Your task to perform on an android device: Go to network settings Image 0: 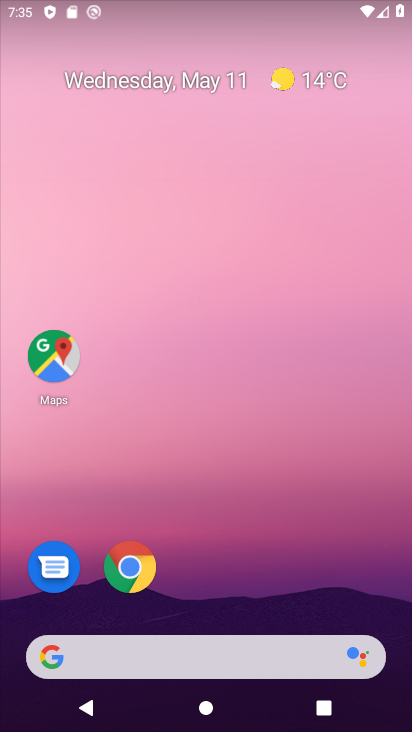
Step 0: drag from (248, 594) to (264, 65)
Your task to perform on an android device: Go to network settings Image 1: 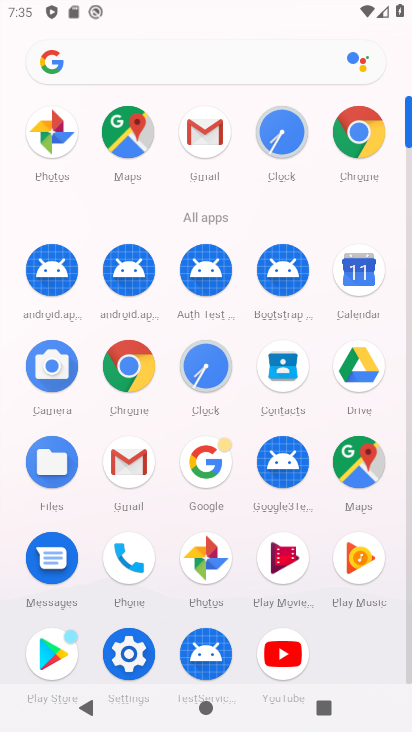
Step 1: click (130, 652)
Your task to perform on an android device: Go to network settings Image 2: 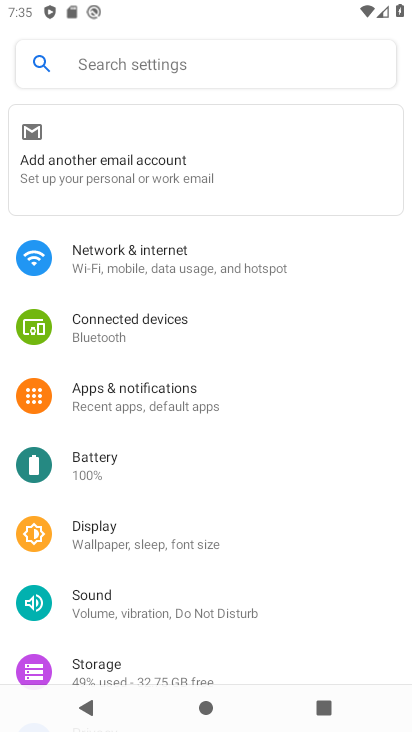
Step 2: click (106, 254)
Your task to perform on an android device: Go to network settings Image 3: 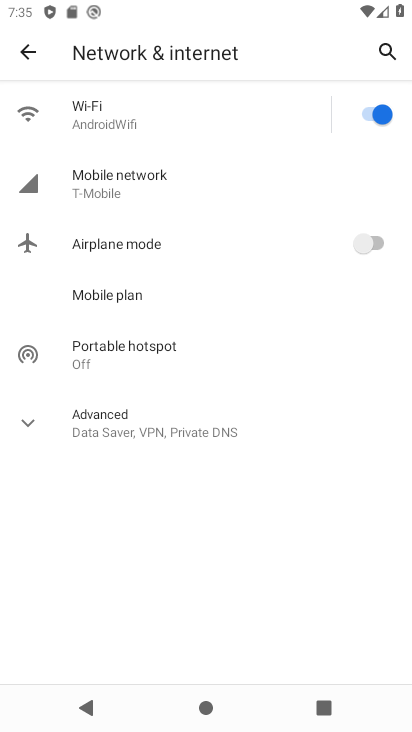
Step 3: task complete